Your task to perform on an android device: Go to calendar. Show me events next week Image 0: 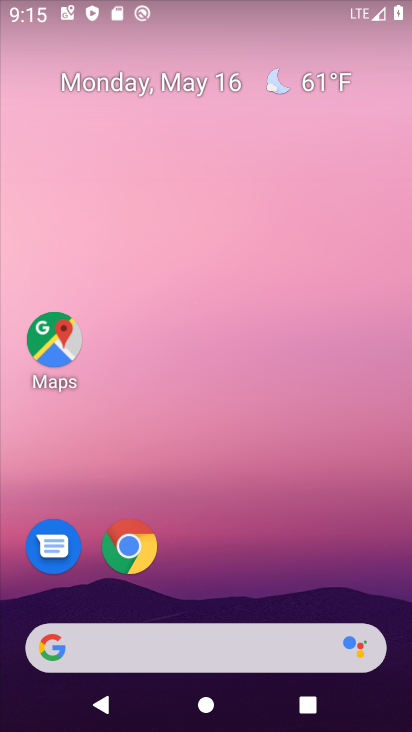
Step 0: drag from (328, 544) to (273, 221)
Your task to perform on an android device: Go to calendar. Show me events next week Image 1: 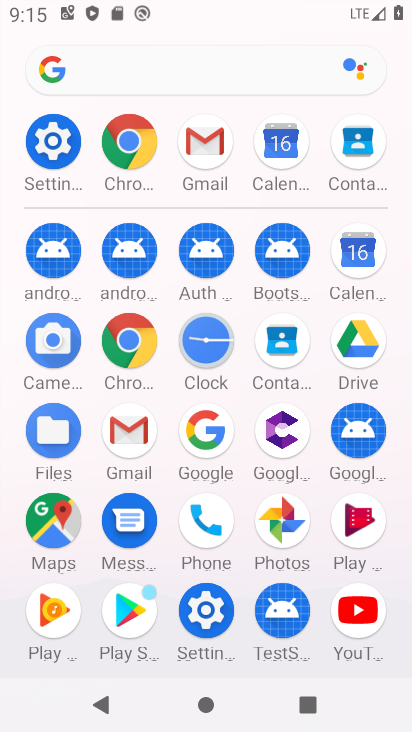
Step 1: click (368, 249)
Your task to perform on an android device: Go to calendar. Show me events next week Image 2: 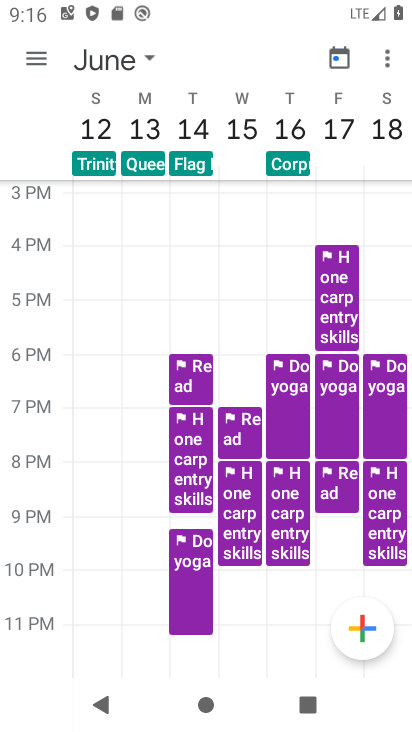
Step 2: click (130, 63)
Your task to perform on an android device: Go to calendar. Show me events next week Image 3: 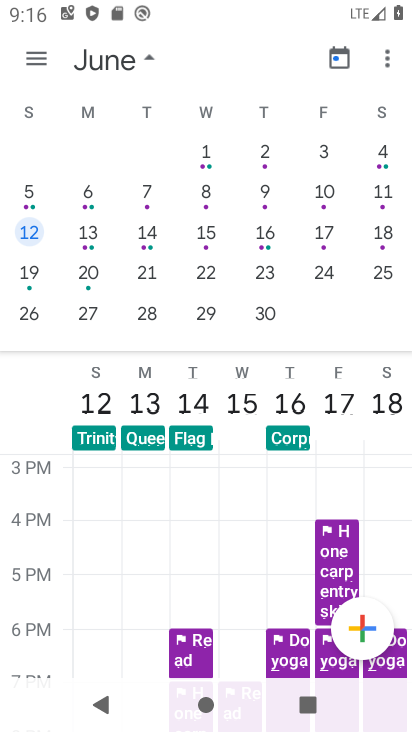
Step 3: drag from (129, 202) to (408, 256)
Your task to perform on an android device: Go to calendar. Show me events next week Image 4: 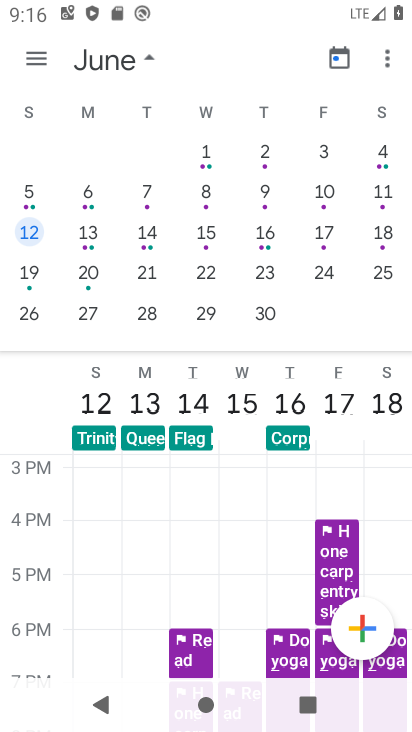
Step 4: drag from (47, 190) to (401, 195)
Your task to perform on an android device: Go to calendar. Show me events next week Image 5: 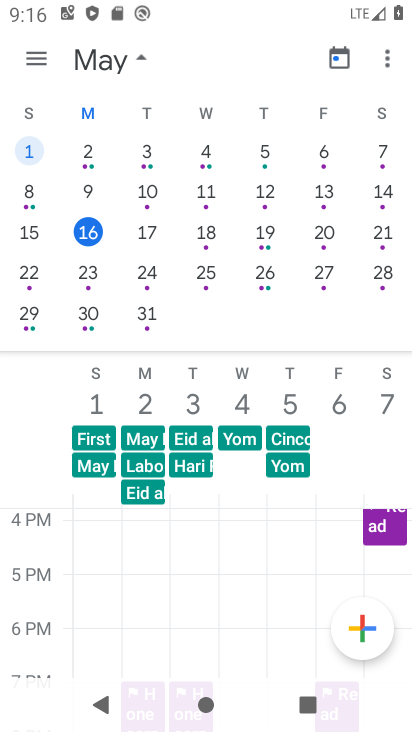
Step 5: click (89, 266)
Your task to perform on an android device: Go to calendar. Show me events next week Image 6: 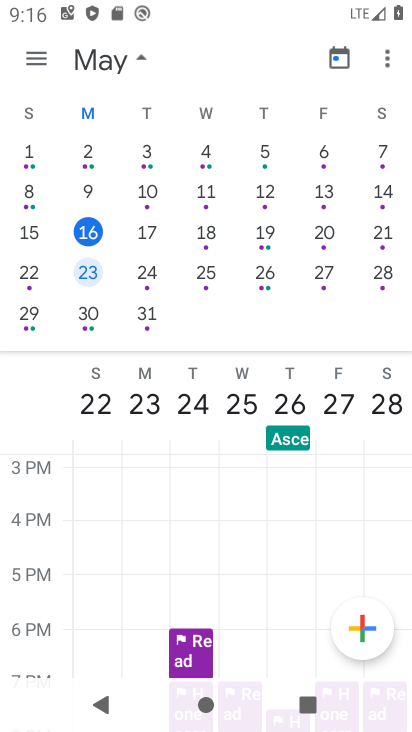
Step 6: task complete